Your task to perform on an android device: Open the map Image 0: 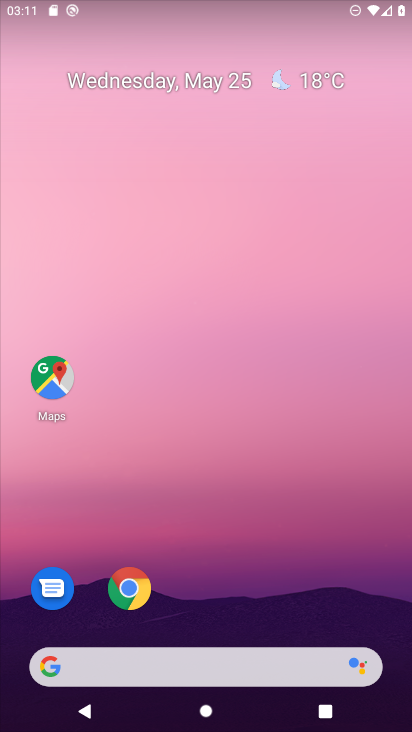
Step 0: click (72, 379)
Your task to perform on an android device: Open the map Image 1: 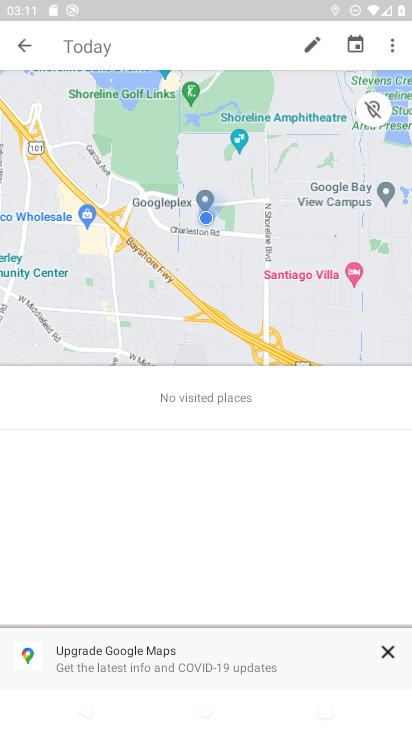
Step 1: task complete